Your task to perform on an android device: Go to notification settings Image 0: 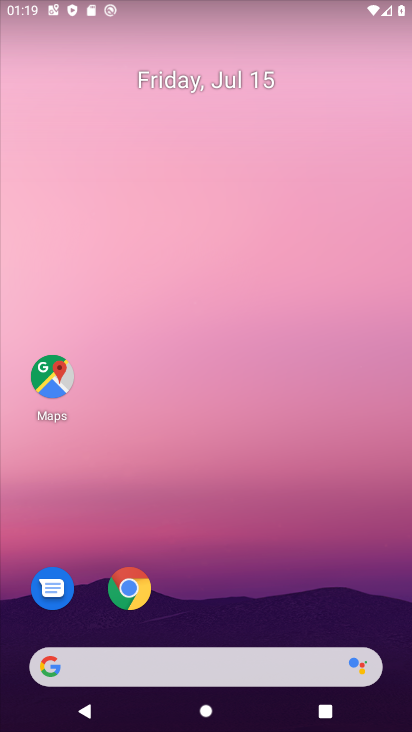
Step 0: drag from (350, 569) to (328, 105)
Your task to perform on an android device: Go to notification settings Image 1: 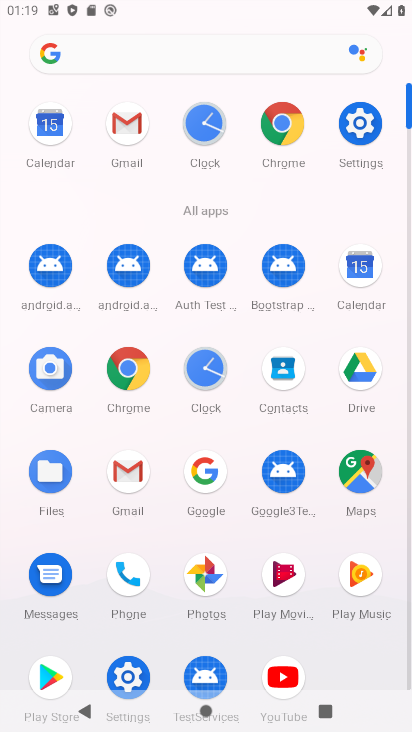
Step 1: click (360, 118)
Your task to perform on an android device: Go to notification settings Image 2: 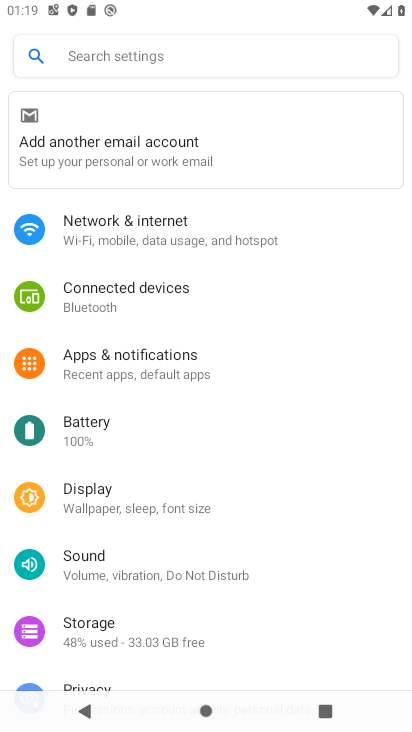
Step 2: click (123, 356)
Your task to perform on an android device: Go to notification settings Image 3: 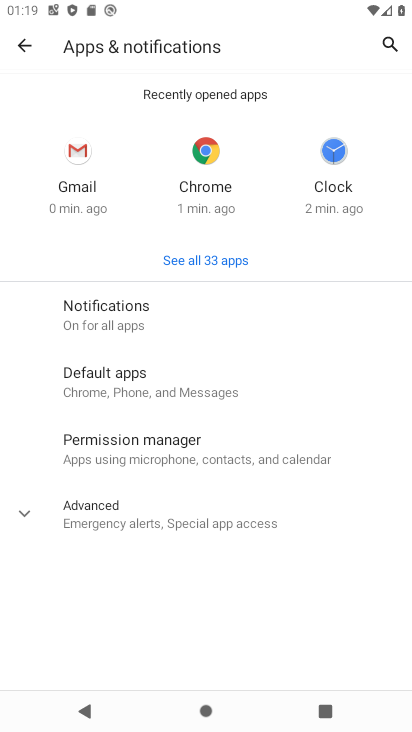
Step 3: click (95, 325)
Your task to perform on an android device: Go to notification settings Image 4: 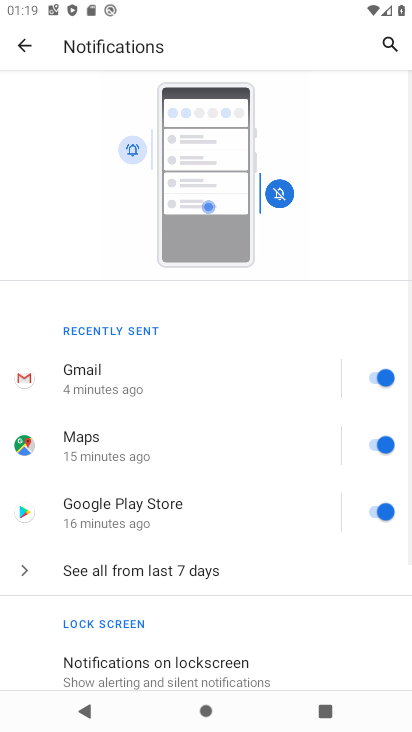
Step 4: drag from (48, 641) to (106, 158)
Your task to perform on an android device: Go to notification settings Image 5: 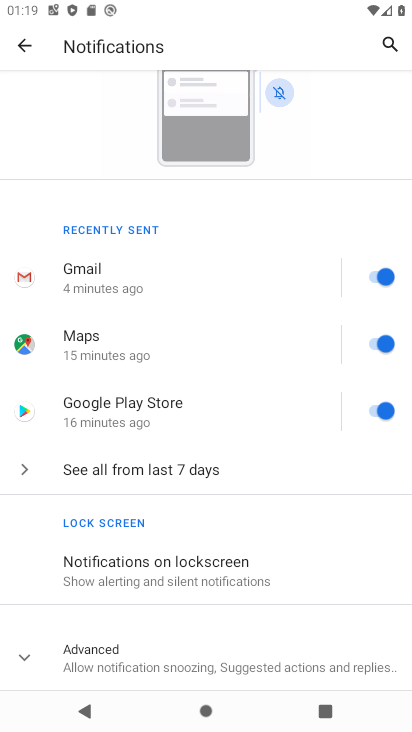
Step 5: click (26, 658)
Your task to perform on an android device: Go to notification settings Image 6: 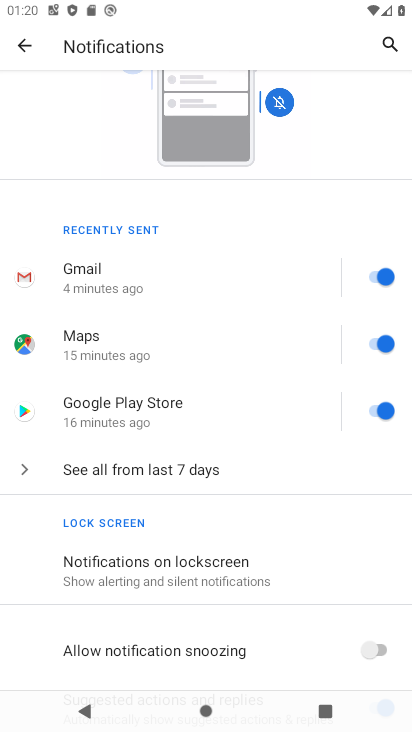
Step 6: task complete